Your task to perform on an android device: Search for vegetarian restaurants on Maps Image 0: 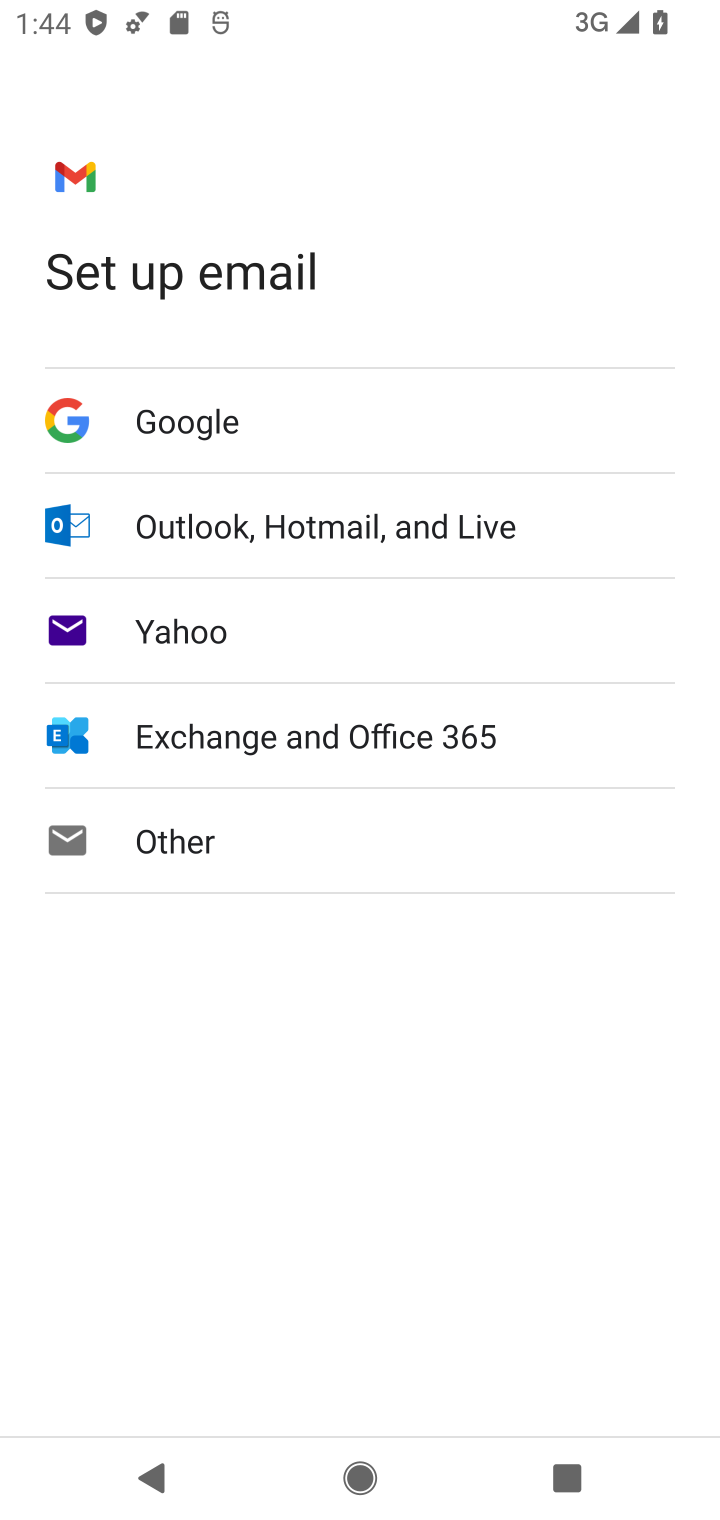
Step 0: press home button
Your task to perform on an android device: Search for vegetarian restaurants on Maps Image 1: 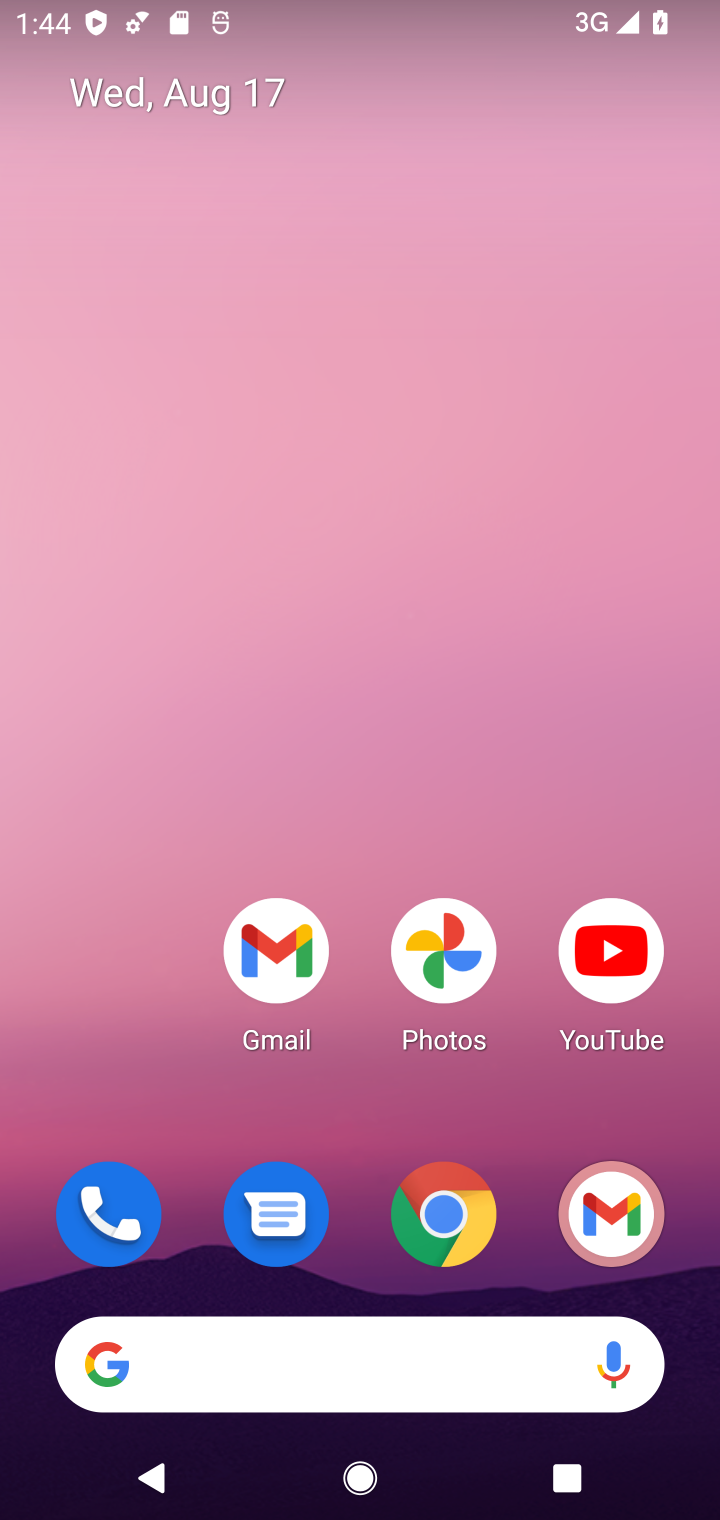
Step 1: drag from (390, 649) to (372, 190)
Your task to perform on an android device: Search for vegetarian restaurants on Maps Image 2: 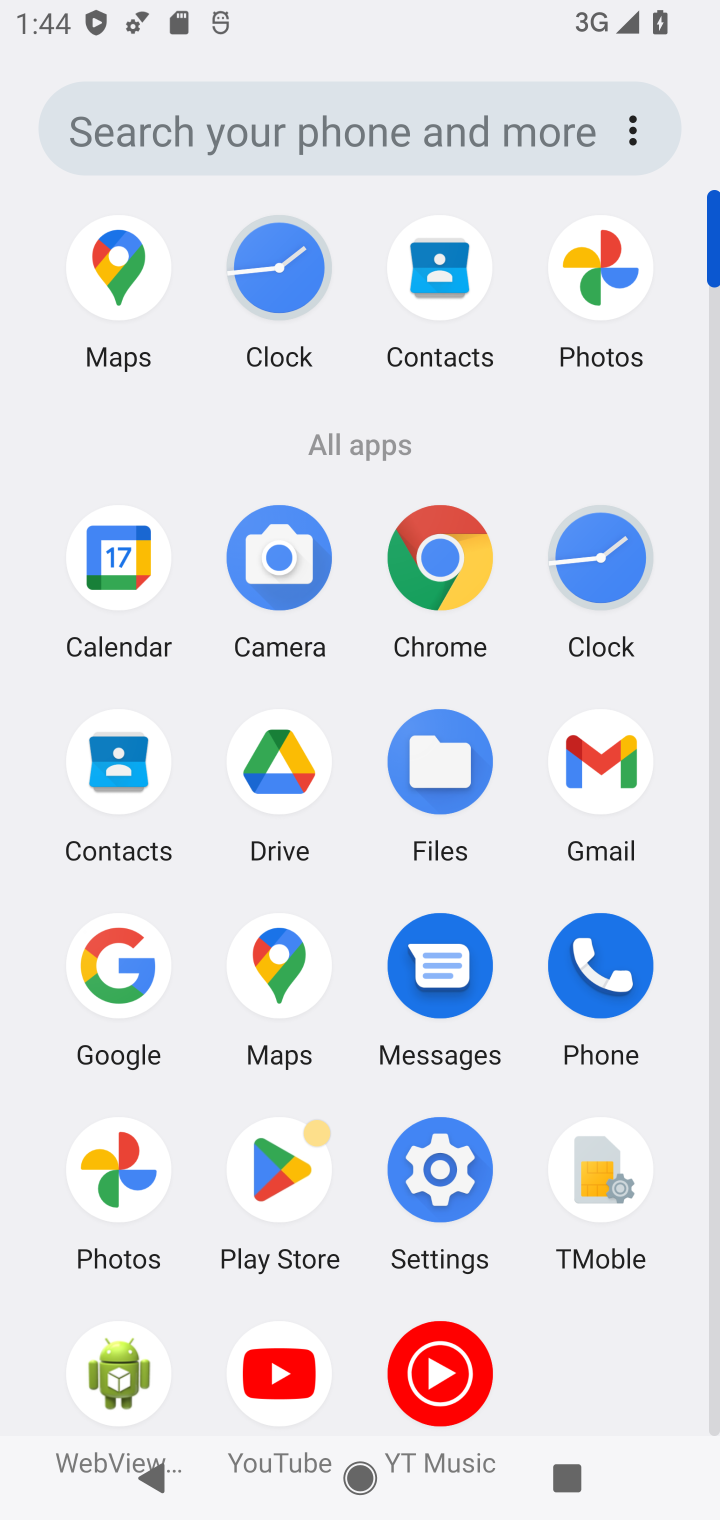
Step 2: click (127, 259)
Your task to perform on an android device: Search for vegetarian restaurants on Maps Image 3: 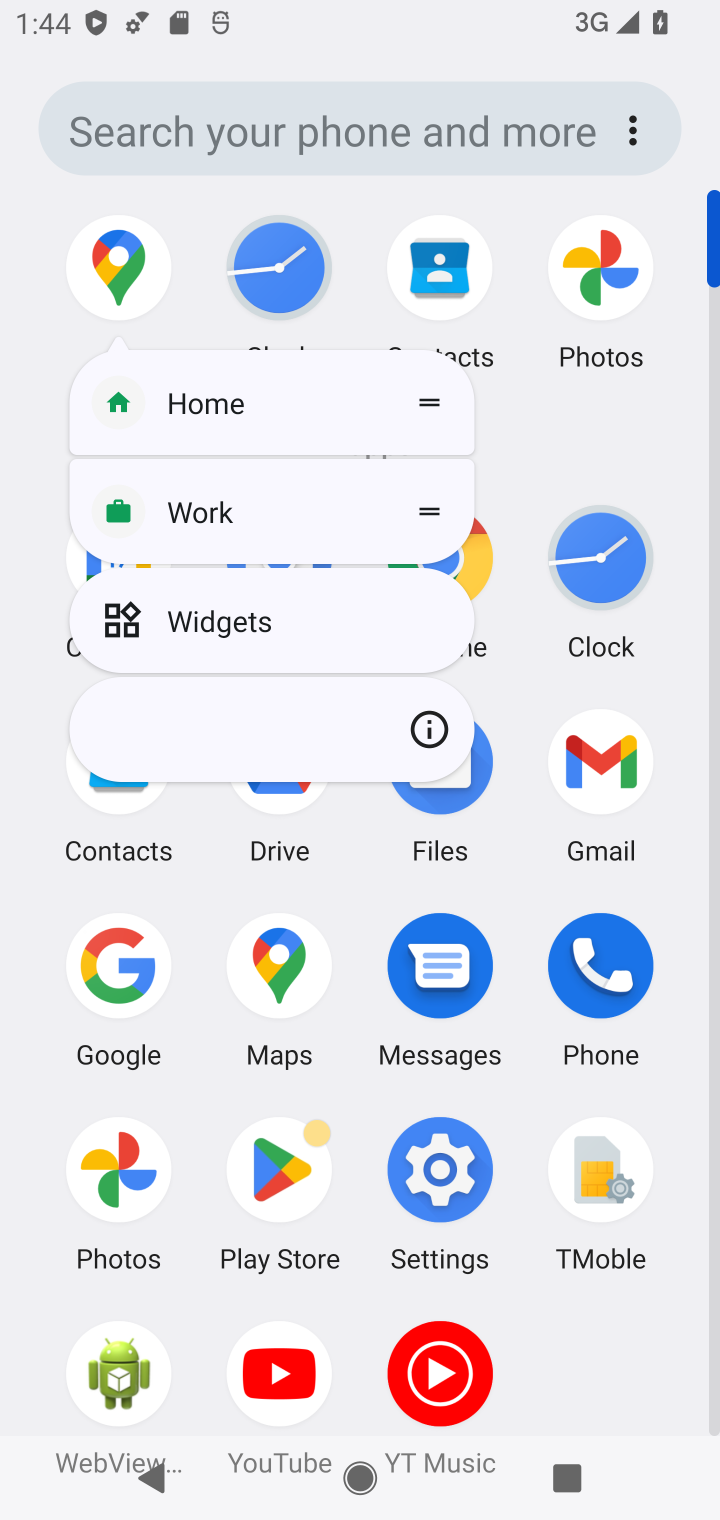
Step 3: click (127, 259)
Your task to perform on an android device: Search for vegetarian restaurants on Maps Image 4: 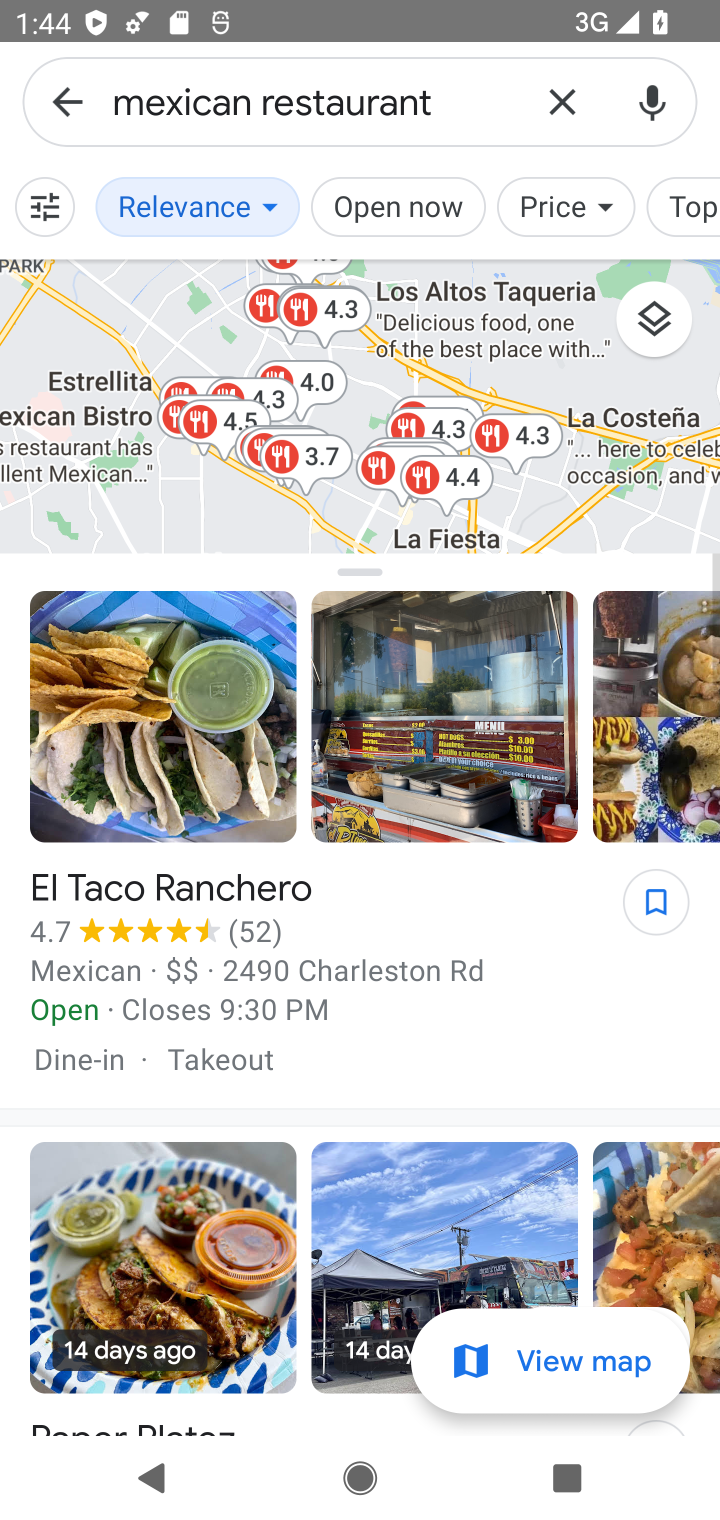
Step 4: click (556, 100)
Your task to perform on an android device: Search for vegetarian restaurants on Maps Image 5: 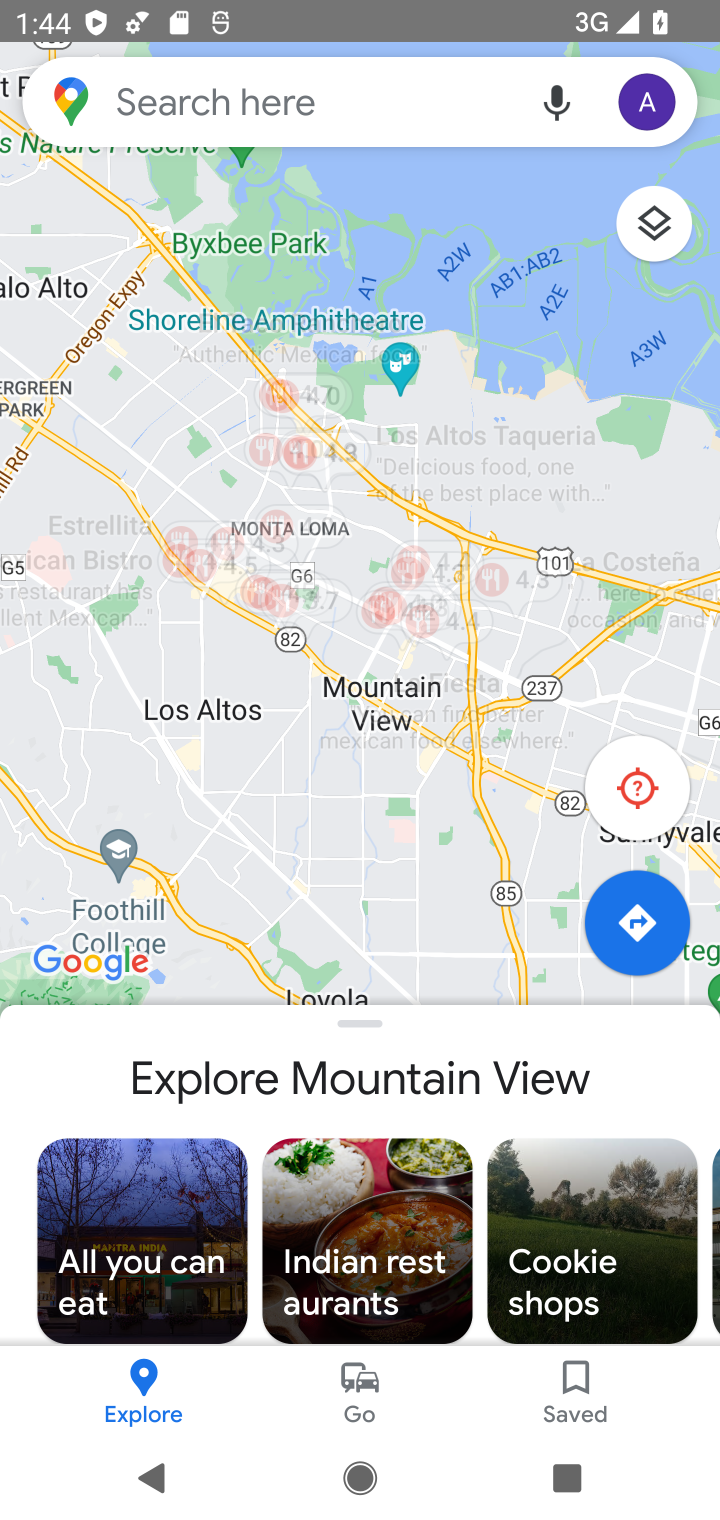
Step 5: click (295, 78)
Your task to perform on an android device: Search for vegetarian restaurants on Maps Image 6: 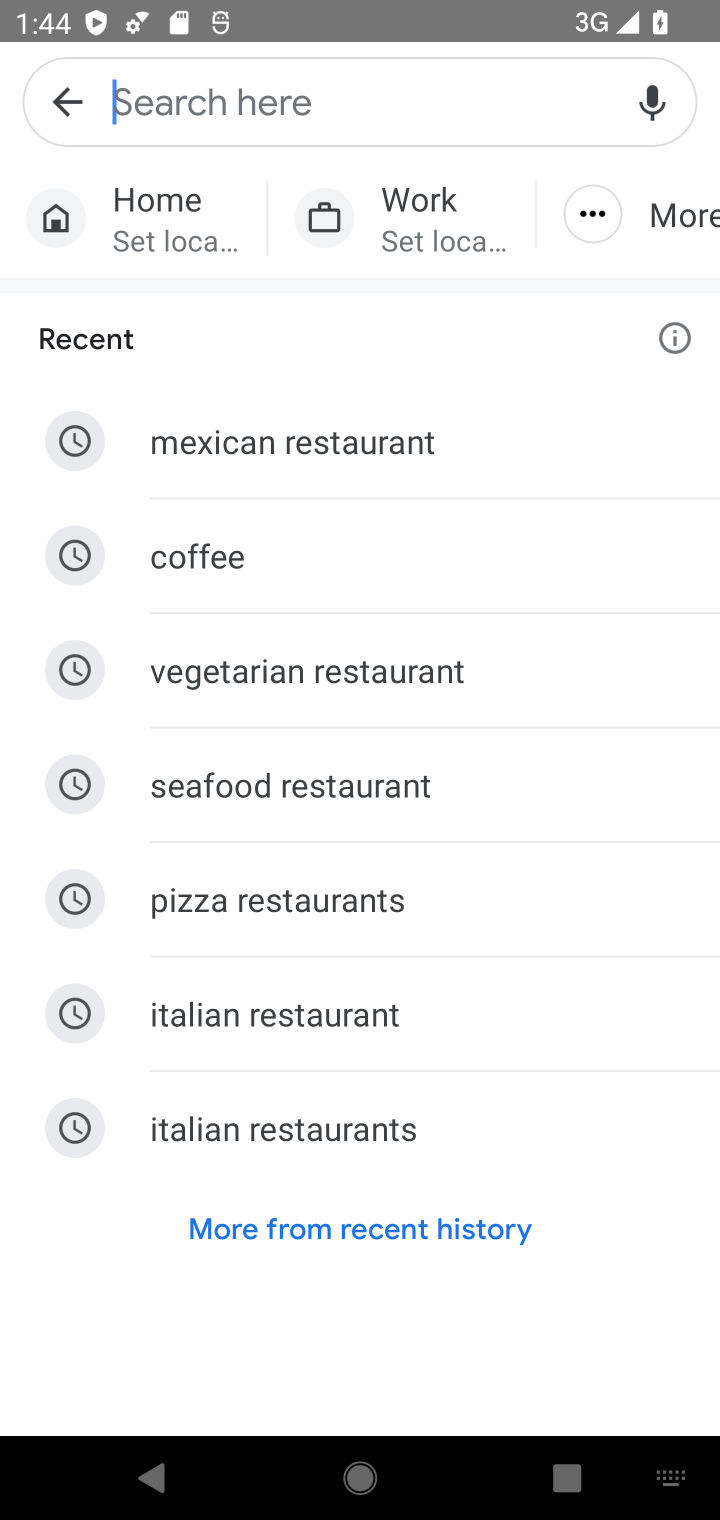
Step 6: click (306, 669)
Your task to perform on an android device: Search for vegetarian restaurants on Maps Image 7: 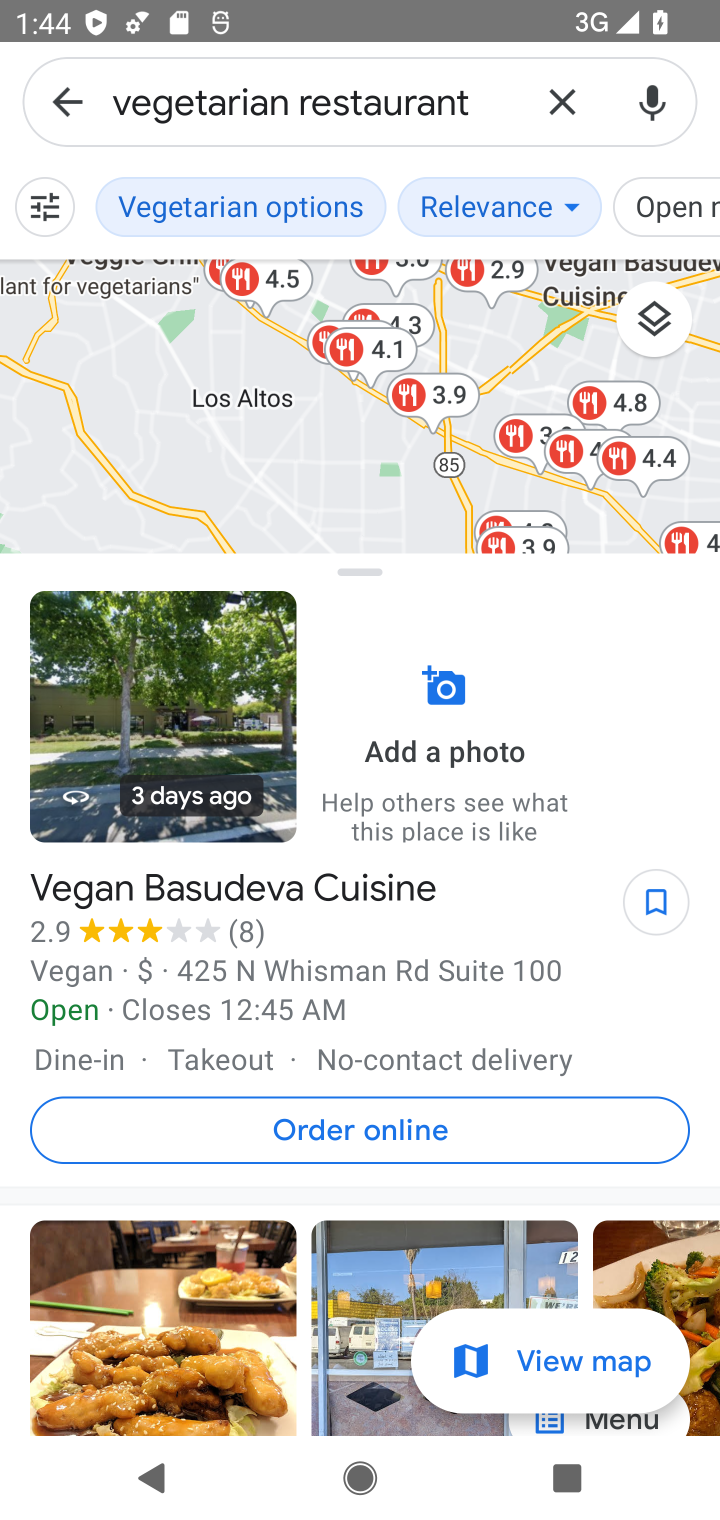
Step 7: task complete